Your task to perform on an android device: Go to ESPN.com Image 0: 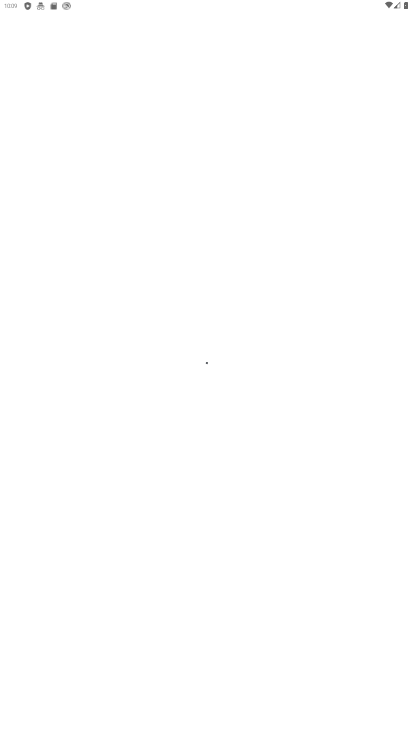
Step 0: press home button
Your task to perform on an android device: Go to ESPN.com Image 1: 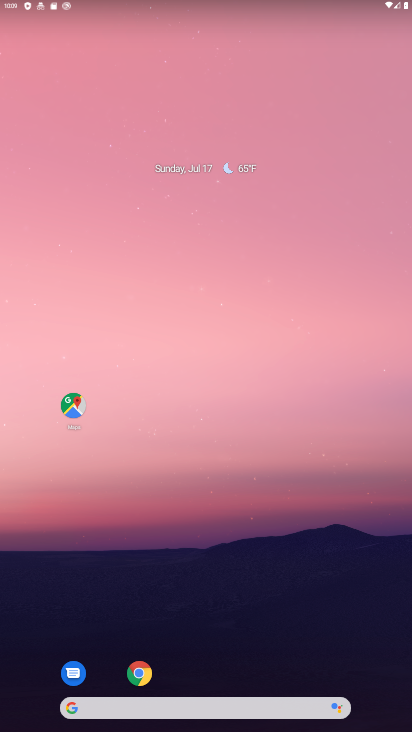
Step 1: click (127, 678)
Your task to perform on an android device: Go to ESPN.com Image 2: 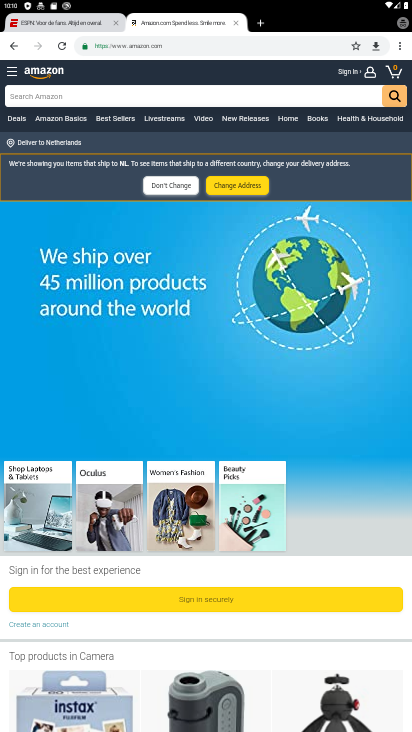
Step 2: click (400, 42)
Your task to perform on an android device: Go to ESPN.com Image 3: 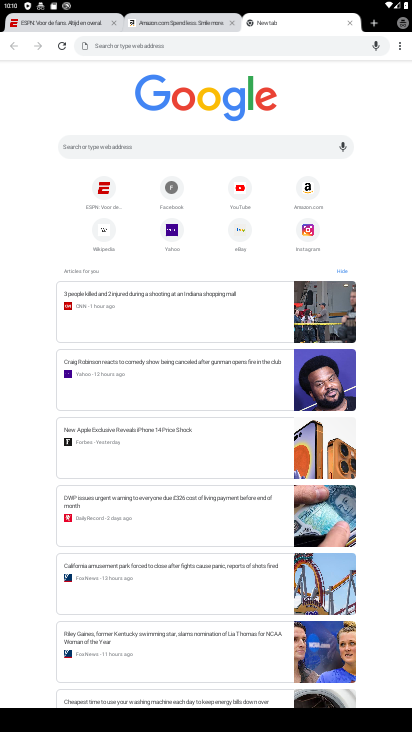
Step 3: click (105, 190)
Your task to perform on an android device: Go to ESPN.com Image 4: 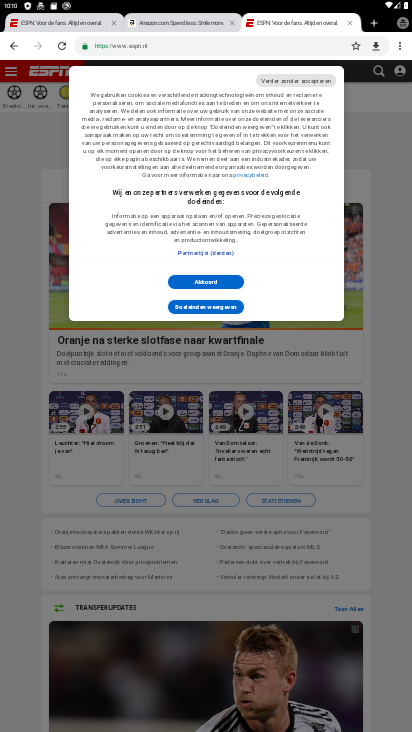
Step 4: click (211, 282)
Your task to perform on an android device: Go to ESPN.com Image 5: 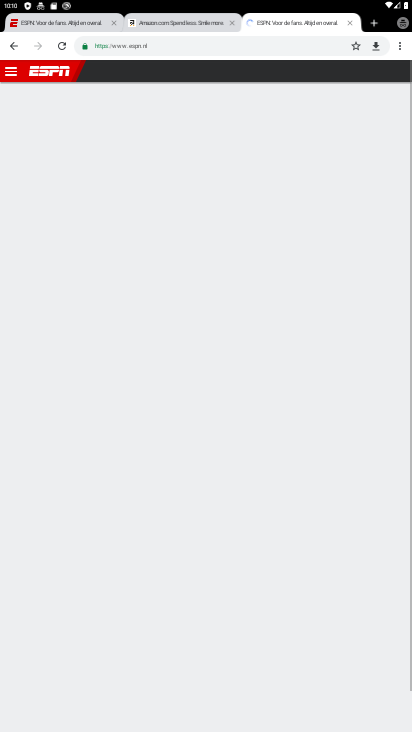
Step 5: task complete